Your task to perform on an android device: Open wifi settings Image 0: 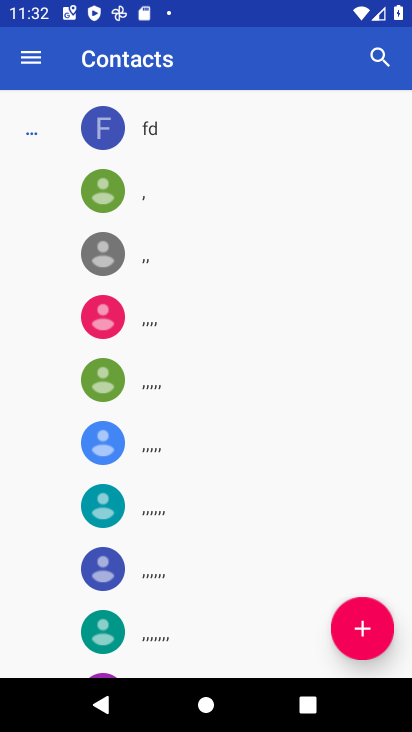
Step 0: press home button
Your task to perform on an android device: Open wifi settings Image 1: 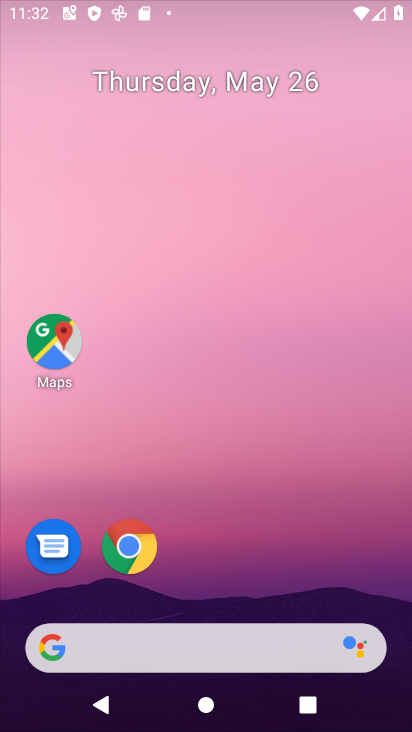
Step 1: drag from (202, 530) to (301, 46)
Your task to perform on an android device: Open wifi settings Image 2: 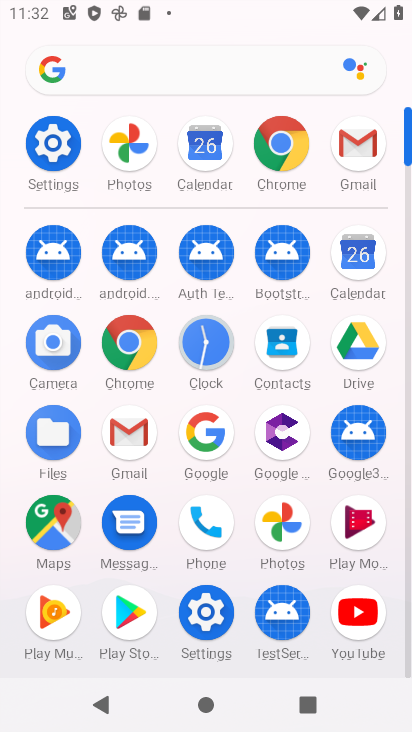
Step 2: click (50, 137)
Your task to perform on an android device: Open wifi settings Image 3: 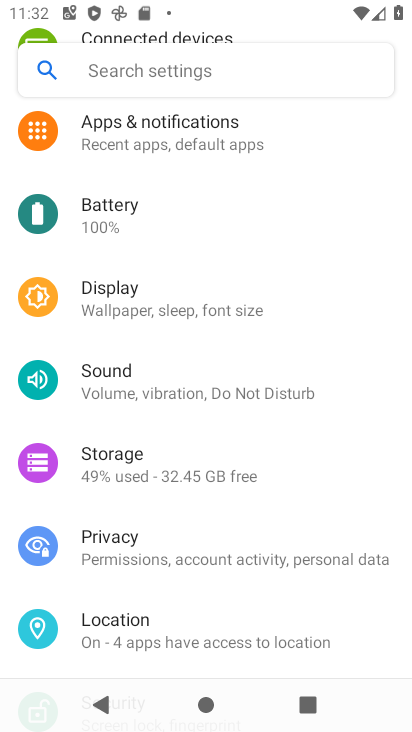
Step 3: drag from (150, 167) to (184, 520)
Your task to perform on an android device: Open wifi settings Image 4: 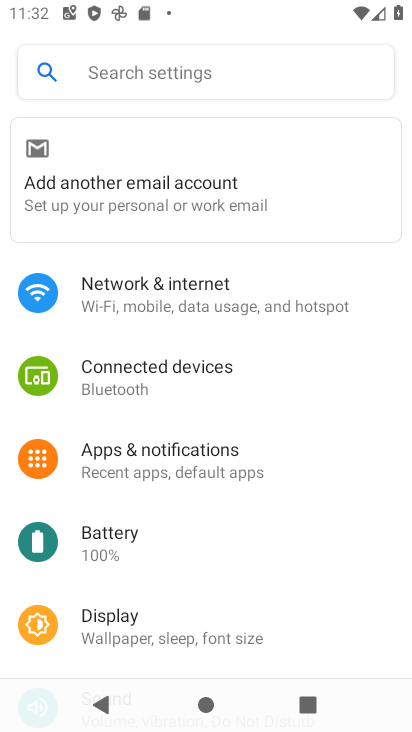
Step 4: click (111, 281)
Your task to perform on an android device: Open wifi settings Image 5: 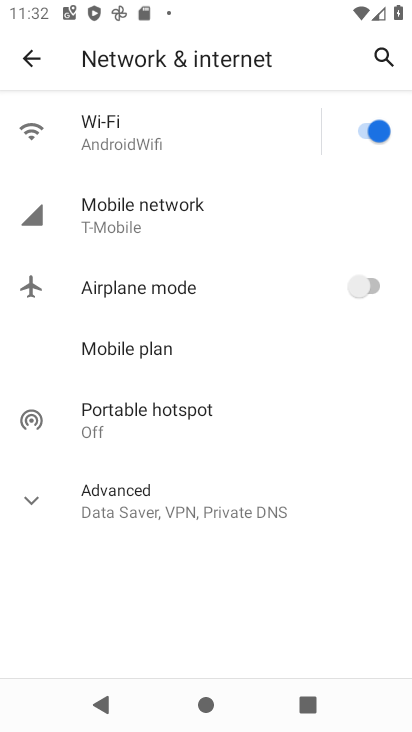
Step 5: click (165, 111)
Your task to perform on an android device: Open wifi settings Image 6: 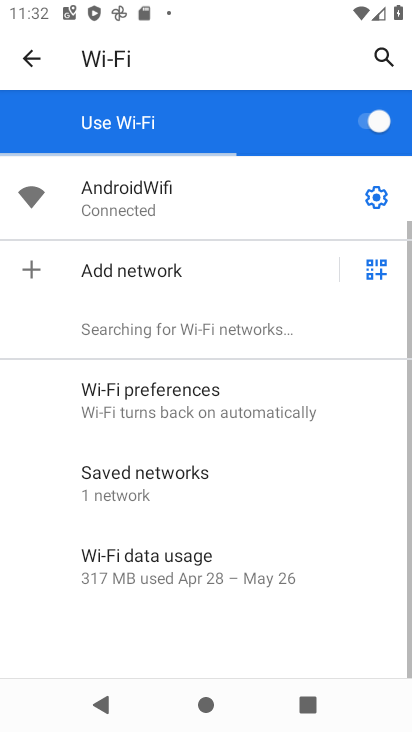
Step 6: click (167, 188)
Your task to perform on an android device: Open wifi settings Image 7: 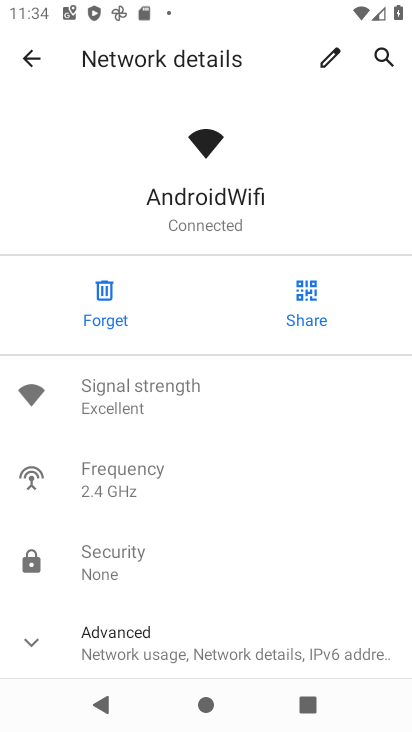
Step 7: task complete